Your task to perform on an android device: see sites visited before in the chrome app Image 0: 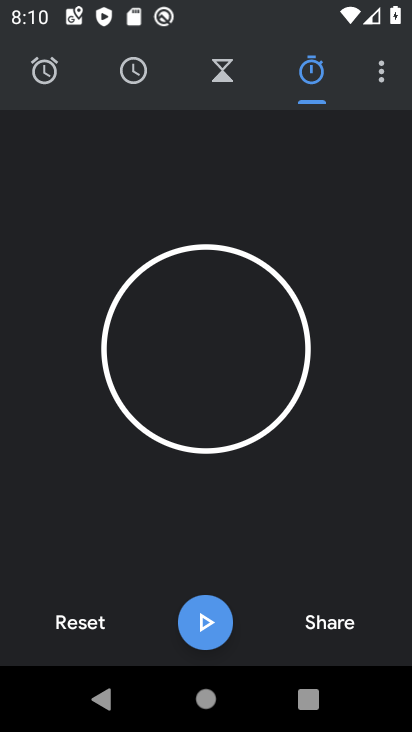
Step 0: press home button
Your task to perform on an android device: see sites visited before in the chrome app Image 1: 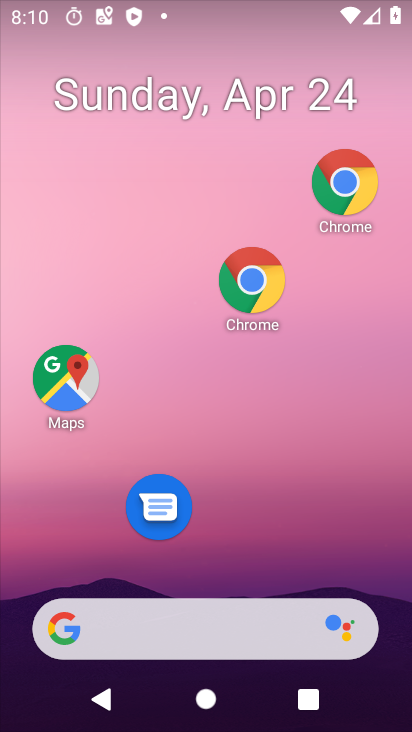
Step 1: drag from (267, 721) to (98, 45)
Your task to perform on an android device: see sites visited before in the chrome app Image 2: 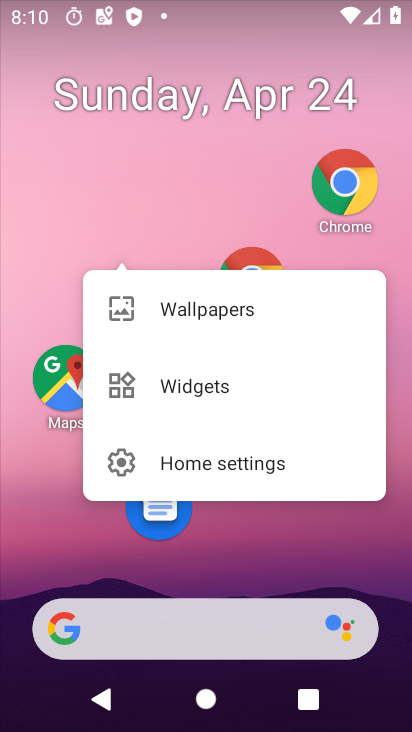
Step 2: click (88, 233)
Your task to perform on an android device: see sites visited before in the chrome app Image 3: 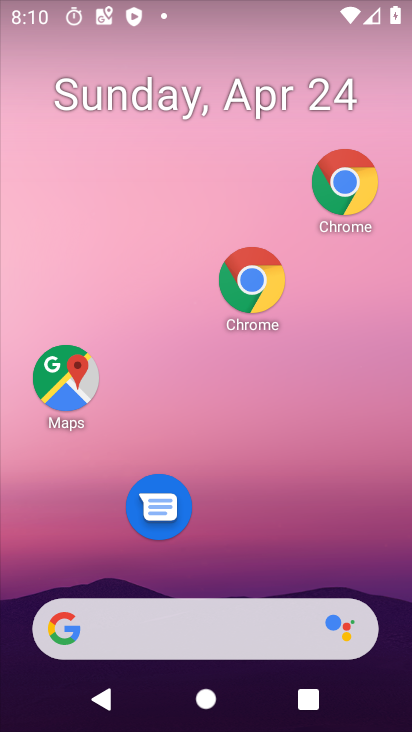
Step 3: click (58, 392)
Your task to perform on an android device: see sites visited before in the chrome app Image 4: 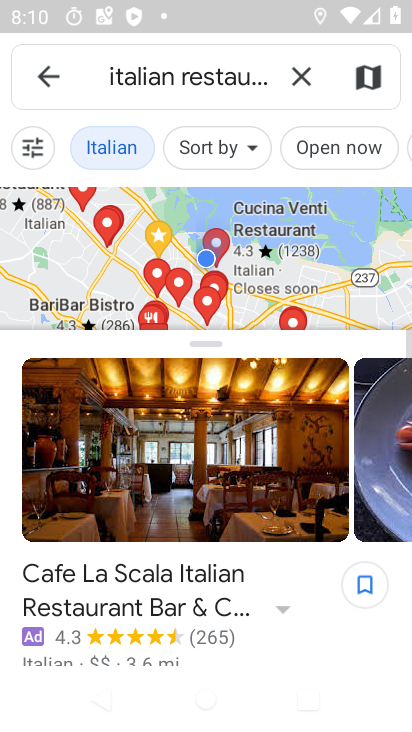
Step 4: click (35, 82)
Your task to perform on an android device: see sites visited before in the chrome app Image 5: 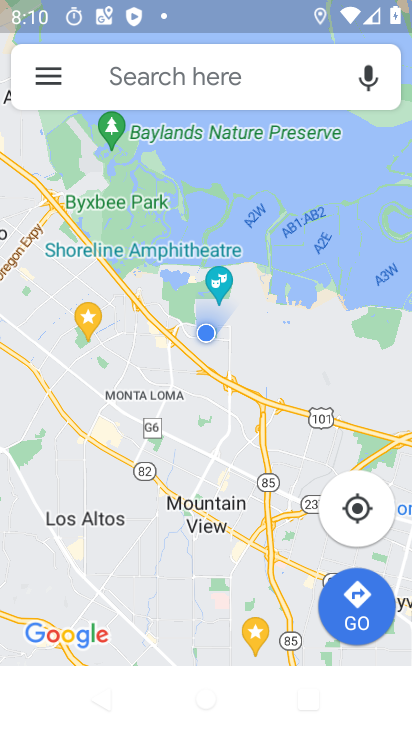
Step 5: press home button
Your task to perform on an android device: see sites visited before in the chrome app Image 6: 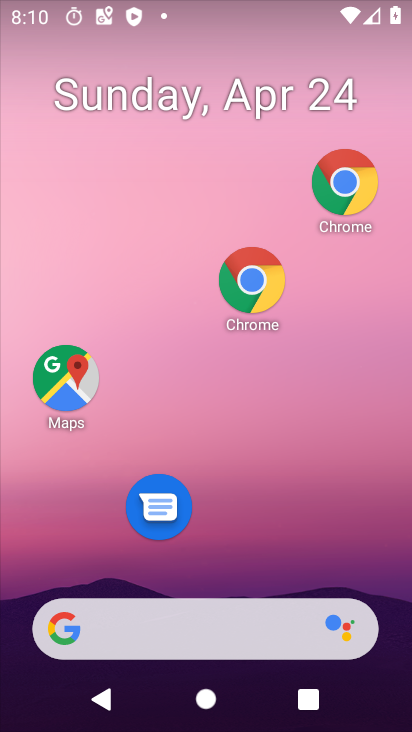
Step 6: drag from (266, 637) to (56, 46)
Your task to perform on an android device: see sites visited before in the chrome app Image 7: 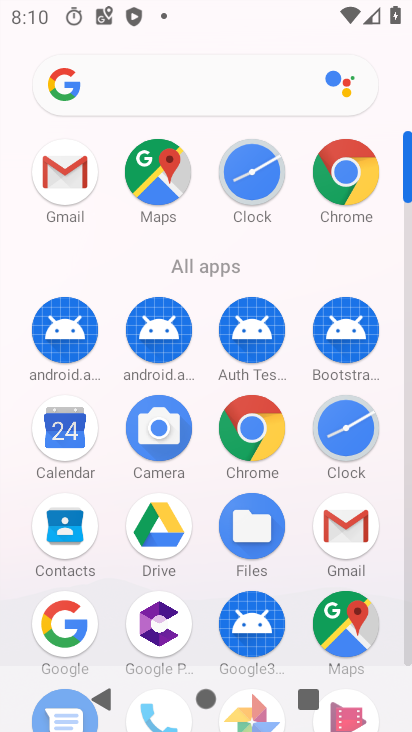
Step 7: click (313, 595)
Your task to perform on an android device: see sites visited before in the chrome app Image 8: 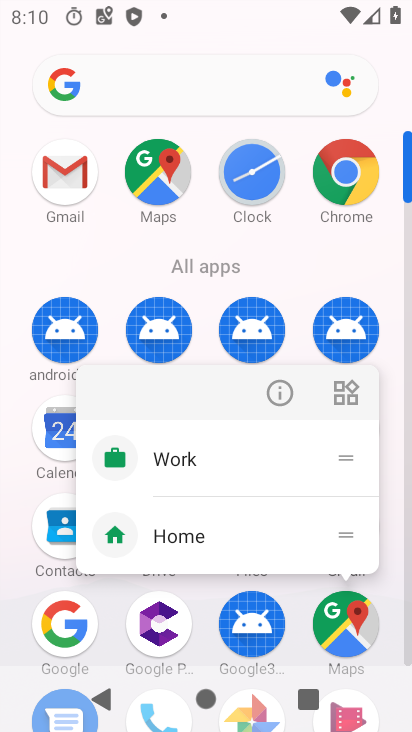
Step 8: click (366, 637)
Your task to perform on an android device: see sites visited before in the chrome app Image 9: 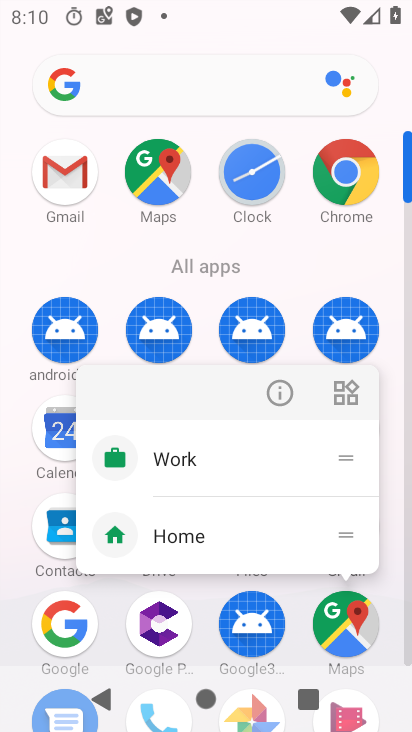
Step 9: click (368, 636)
Your task to perform on an android device: see sites visited before in the chrome app Image 10: 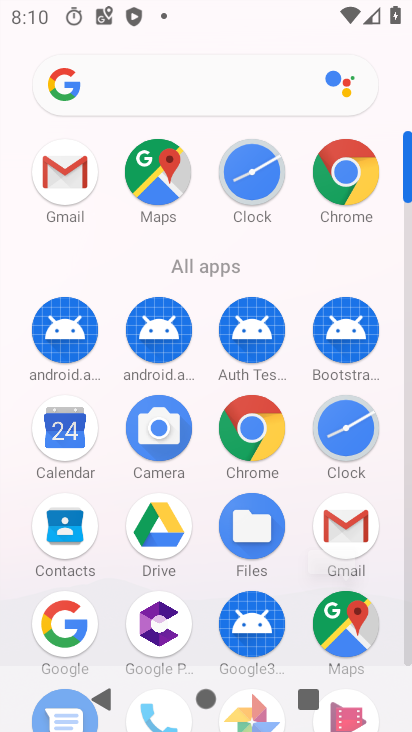
Step 10: click (373, 622)
Your task to perform on an android device: see sites visited before in the chrome app Image 11: 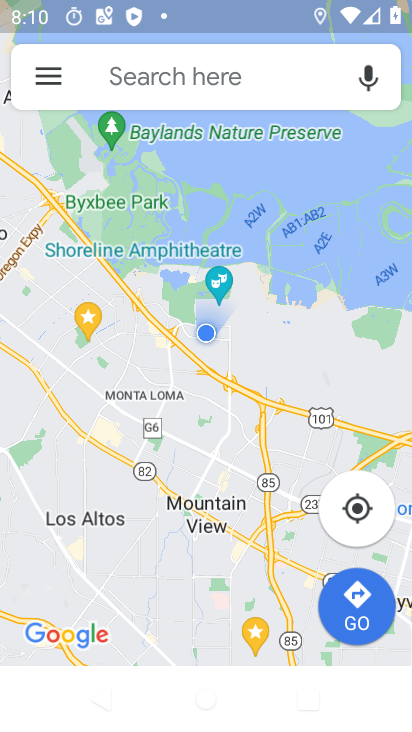
Step 11: press home button
Your task to perform on an android device: see sites visited before in the chrome app Image 12: 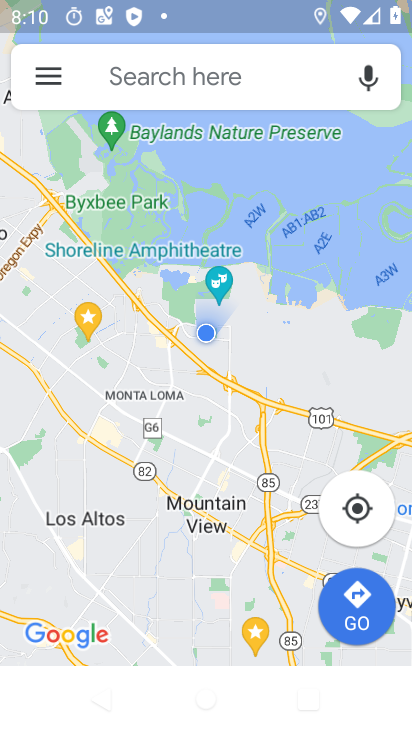
Step 12: press home button
Your task to perform on an android device: see sites visited before in the chrome app Image 13: 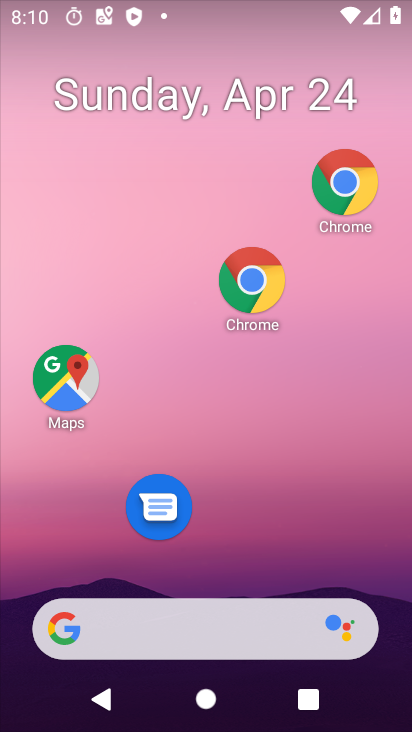
Step 13: click (247, 278)
Your task to perform on an android device: see sites visited before in the chrome app Image 14: 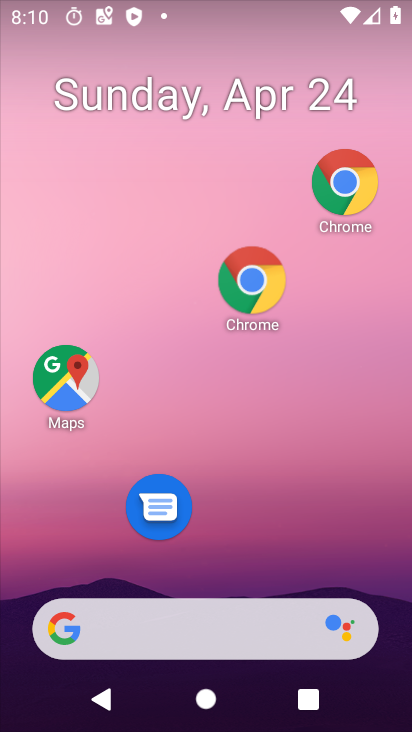
Step 14: click (250, 277)
Your task to perform on an android device: see sites visited before in the chrome app Image 15: 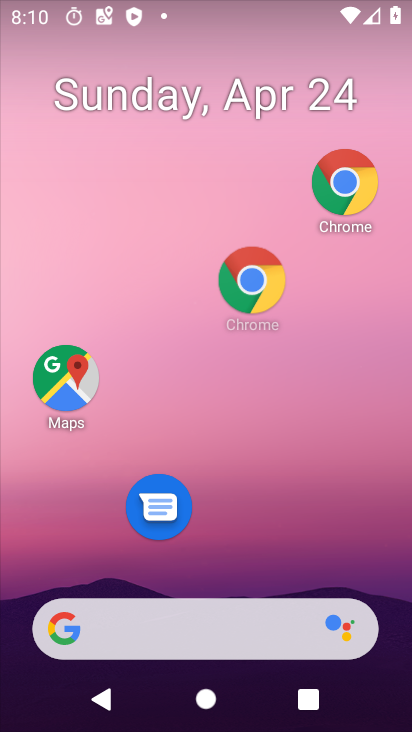
Step 15: click (250, 277)
Your task to perform on an android device: see sites visited before in the chrome app Image 16: 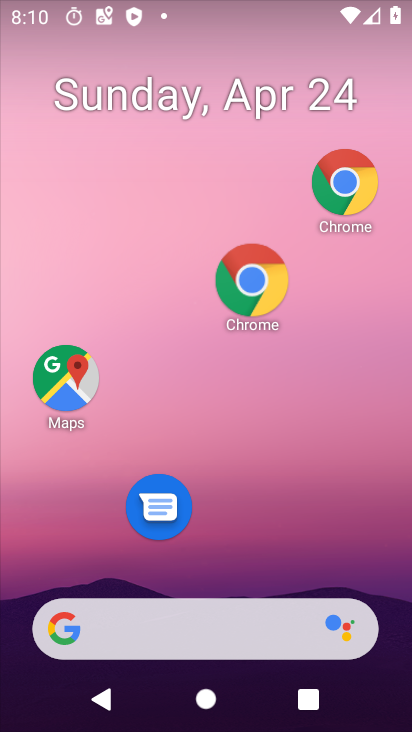
Step 16: click (250, 277)
Your task to perform on an android device: see sites visited before in the chrome app Image 17: 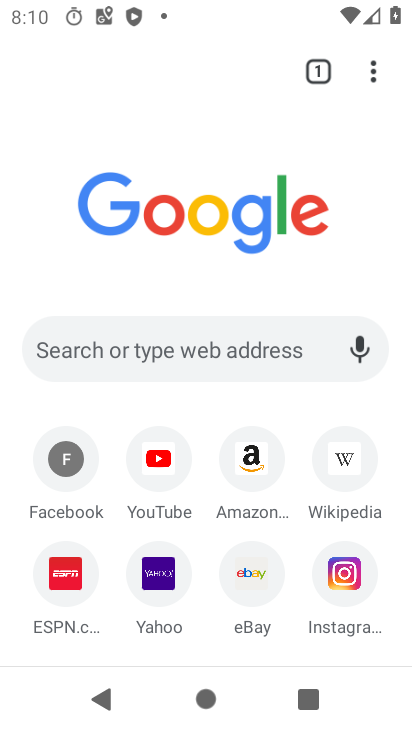
Step 17: click (258, 281)
Your task to perform on an android device: see sites visited before in the chrome app Image 18: 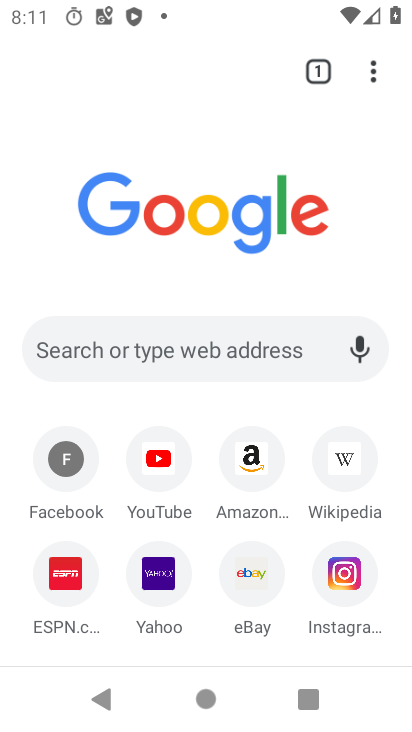
Step 18: drag from (367, 67) to (126, 502)
Your task to perform on an android device: see sites visited before in the chrome app Image 19: 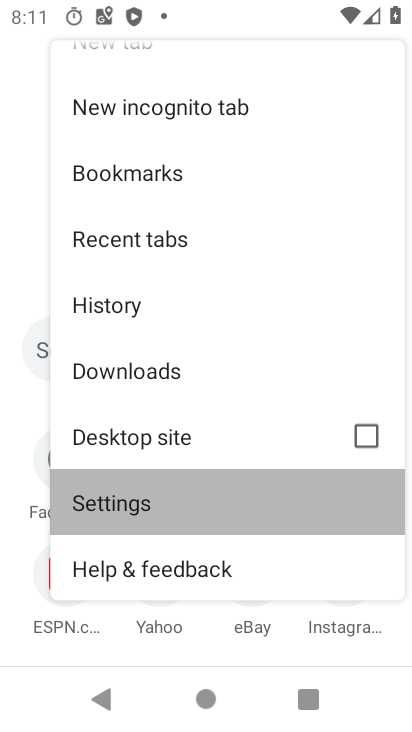
Step 19: click (126, 502)
Your task to perform on an android device: see sites visited before in the chrome app Image 20: 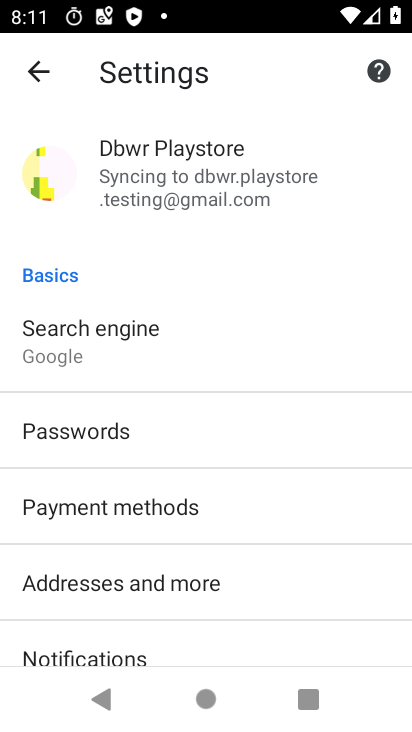
Step 20: drag from (99, 501) to (44, 197)
Your task to perform on an android device: see sites visited before in the chrome app Image 21: 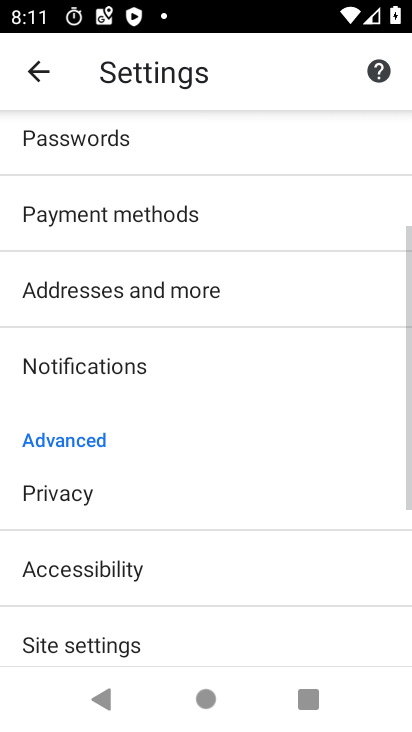
Step 21: drag from (140, 516) to (106, 106)
Your task to perform on an android device: see sites visited before in the chrome app Image 22: 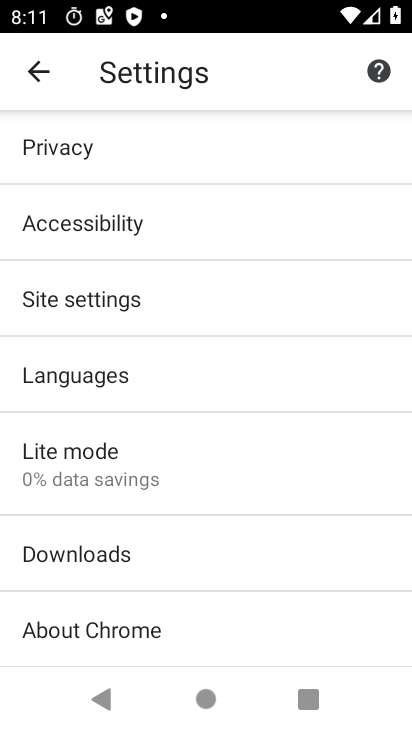
Step 22: click (69, 298)
Your task to perform on an android device: see sites visited before in the chrome app Image 23: 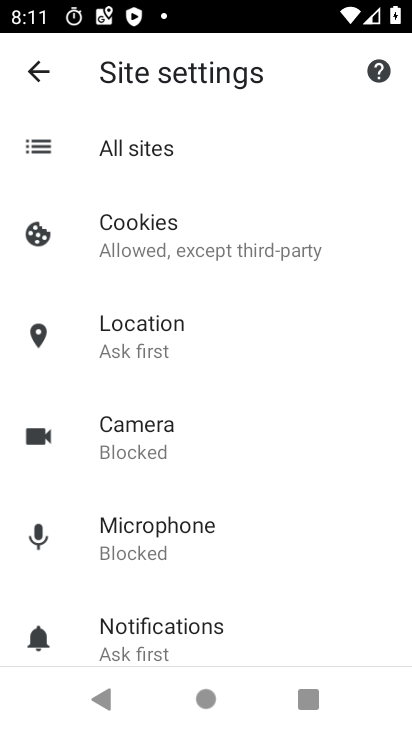
Step 23: click (154, 154)
Your task to perform on an android device: see sites visited before in the chrome app Image 24: 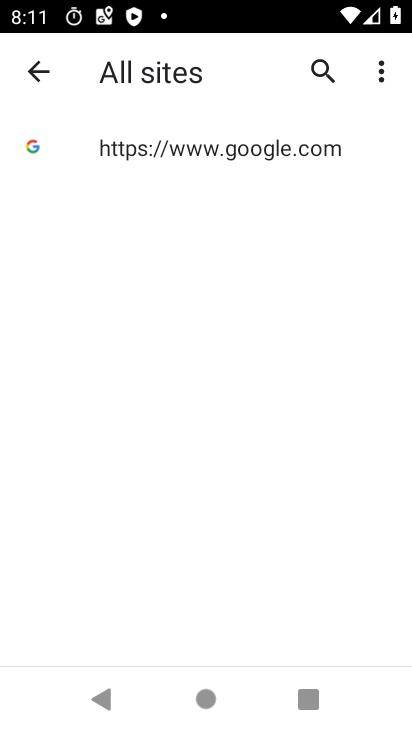
Step 24: click (183, 145)
Your task to perform on an android device: see sites visited before in the chrome app Image 25: 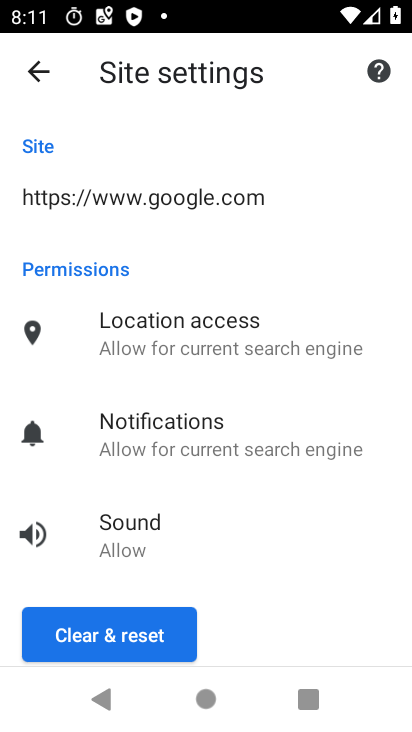
Step 25: click (37, 50)
Your task to perform on an android device: see sites visited before in the chrome app Image 26: 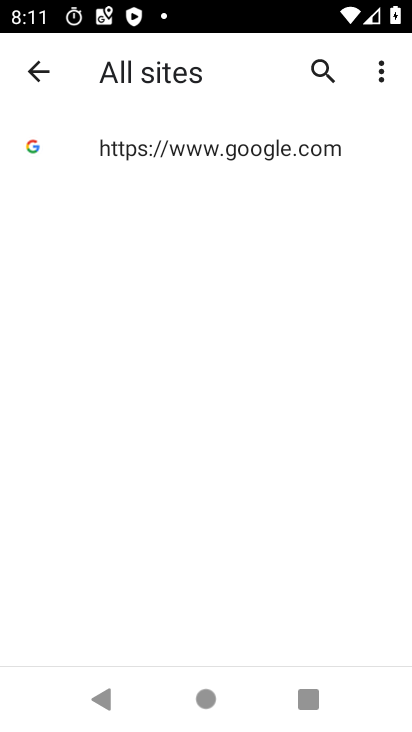
Step 26: click (18, 79)
Your task to perform on an android device: see sites visited before in the chrome app Image 27: 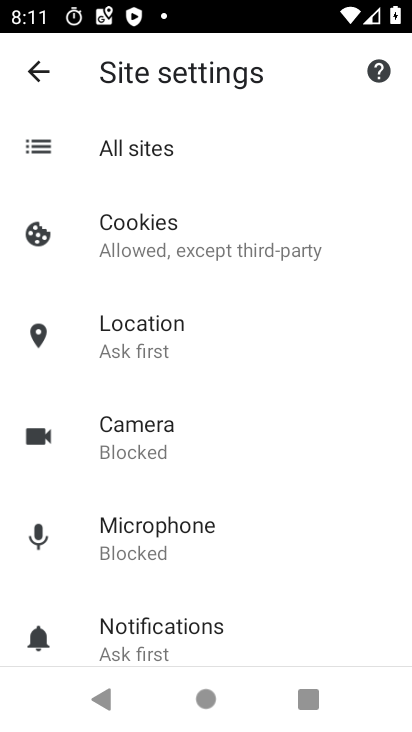
Step 27: click (35, 72)
Your task to perform on an android device: see sites visited before in the chrome app Image 28: 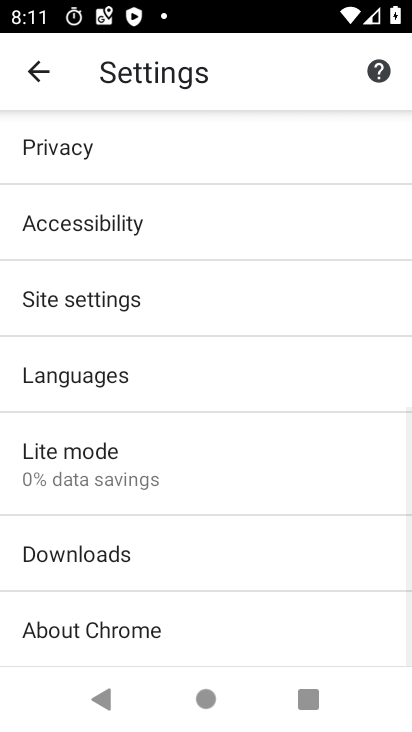
Step 28: click (44, 79)
Your task to perform on an android device: see sites visited before in the chrome app Image 29: 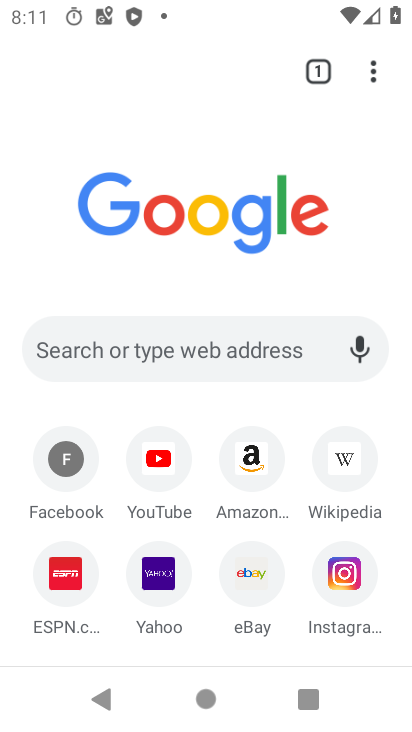
Step 29: drag from (366, 81) to (112, 336)
Your task to perform on an android device: see sites visited before in the chrome app Image 30: 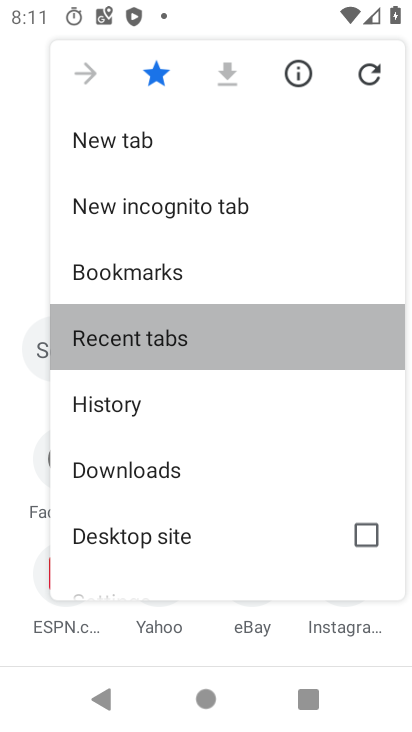
Step 30: click (112, 336)
Your task to perform on an android device: see sites visited before in the chrome app Image 31: 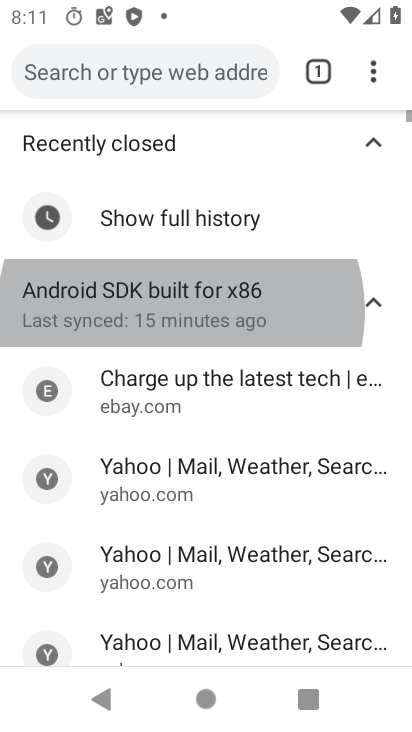
Step 31: click (116, 330)
Your task to perform on an android device: see sites visited before in the chrome app Image 32: 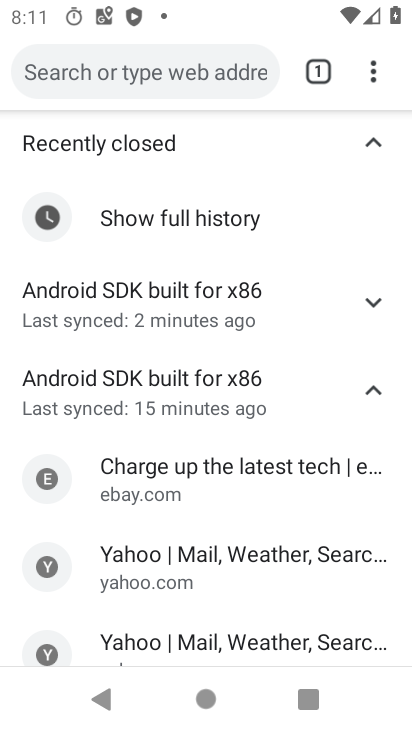
Step 32: task complete